Your task to perform on an android device: delete the emails in spam in the gmail app Image 0: 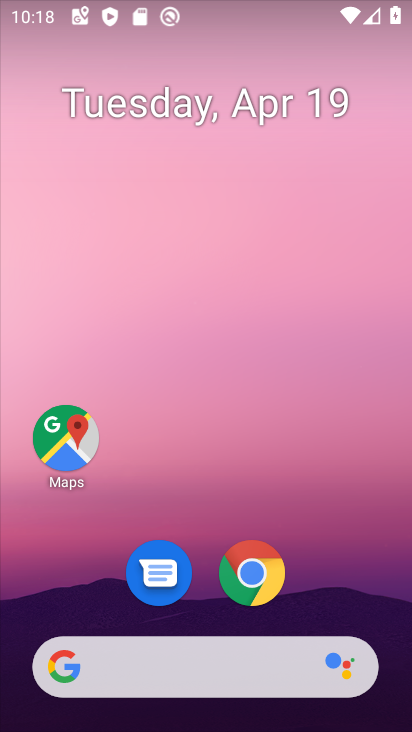
Step 0: drag from (330, 497) to (291, 77)
Your task to perform on an android device: delete the emails in spam in the gmail app Image 1: 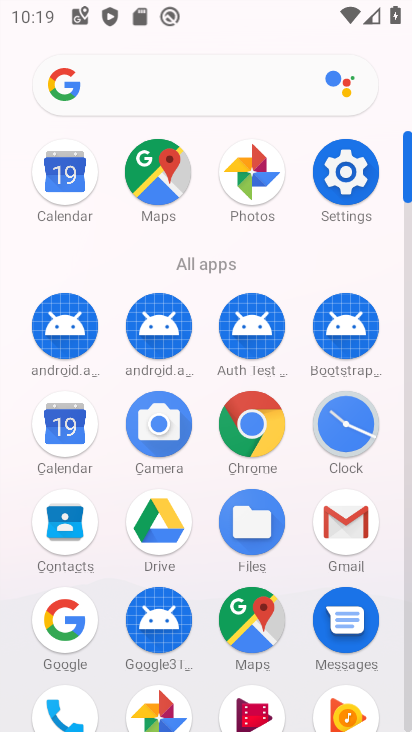
Step 1: click (356, 526)
Your task to perform on an android device: delete the emails in spam in the gmail app Image 2: 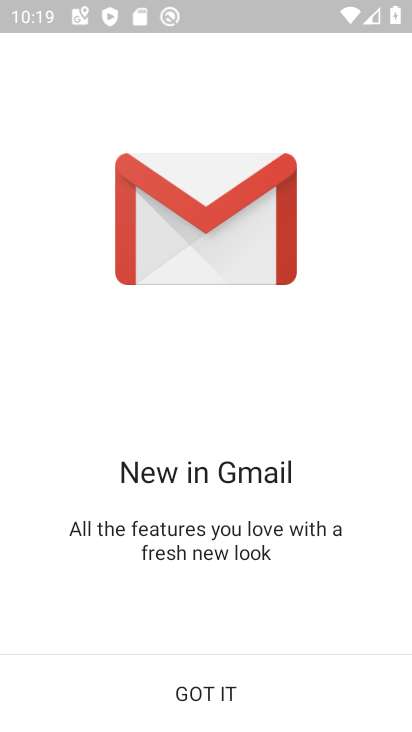
Step 2: click (211, 704)
Your task to perform on an android device: delete the emails in spam in the gmail app Image 3: 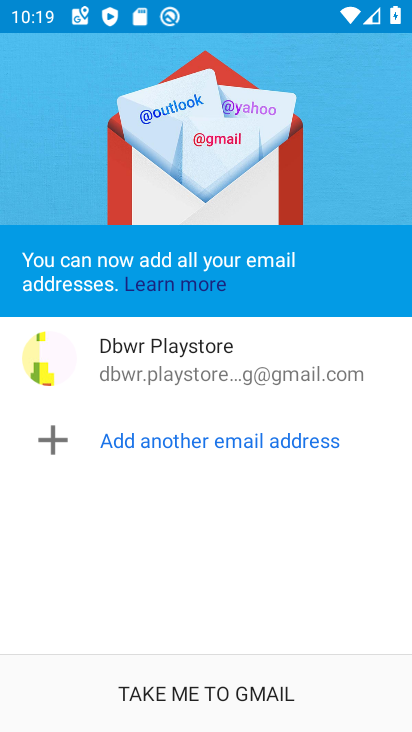
Step 3: click (205, 697)
Your task to perform on an android device: delete the emails in spam in the gmail app Image 4: 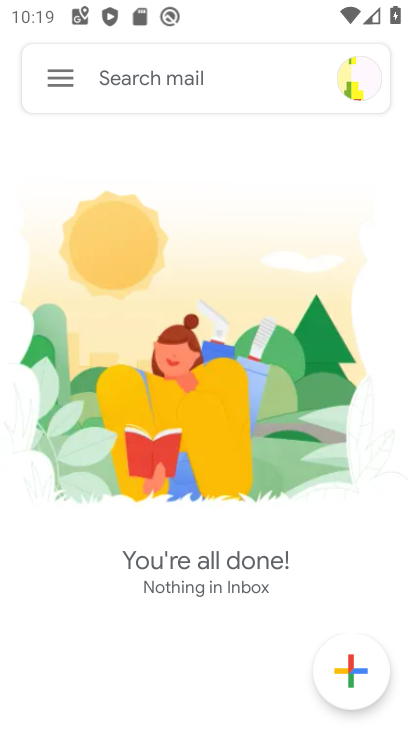
Step 4: click (60, 78)
Your task to perform on an android device: delete the emails in spam in the gmail app Image 5: 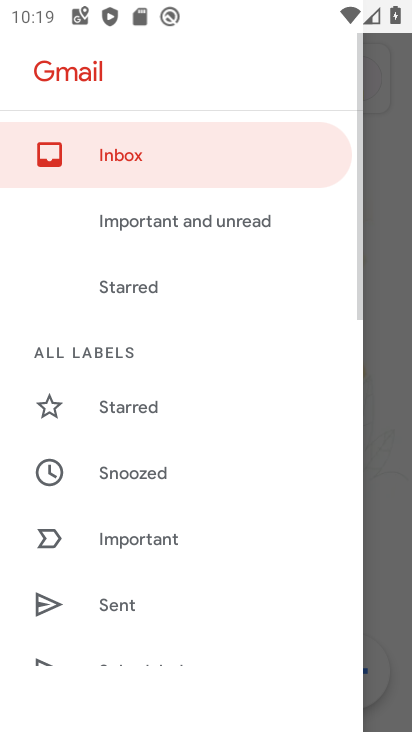
Step 5: drag from (164, 654) to (155, 217)
Your task to perform on an android device: delete the emails in spam in the gmail app Image 6: 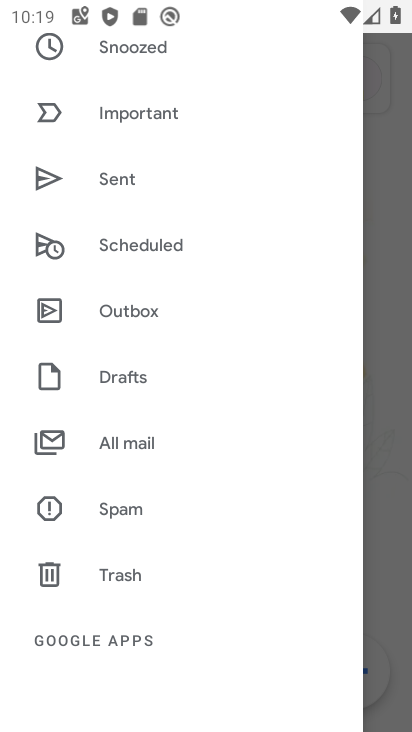
Step 6: drag from (163, 208) to (145, 635)
Your task to perform on an android device: delete the emails in spam in the gmail app Image 7: 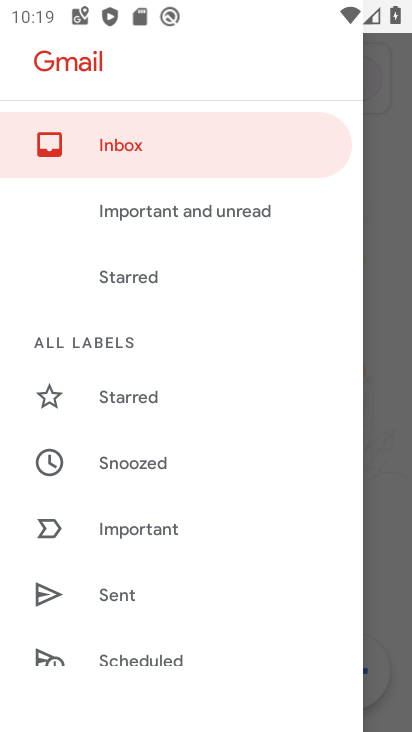
Step 7: drag from (130, 630) to (107, 314)
Your task to perform on an android device: delete the emails in spam in the gmail app Image 8: 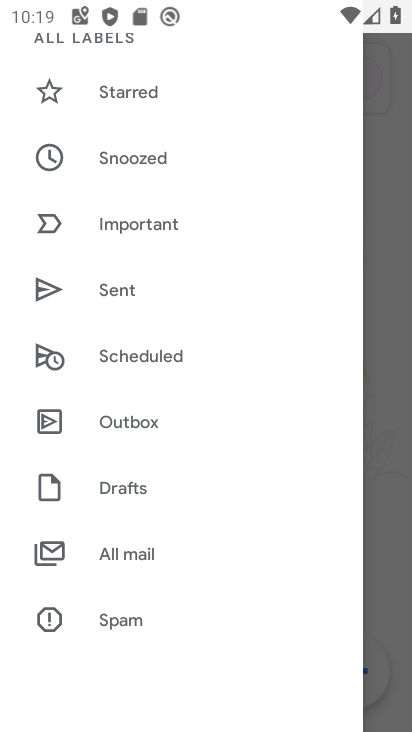
Step 8: click (96, 621)
Your task to perform on an android device: delete the emails in spam in the gmail app Image 9: 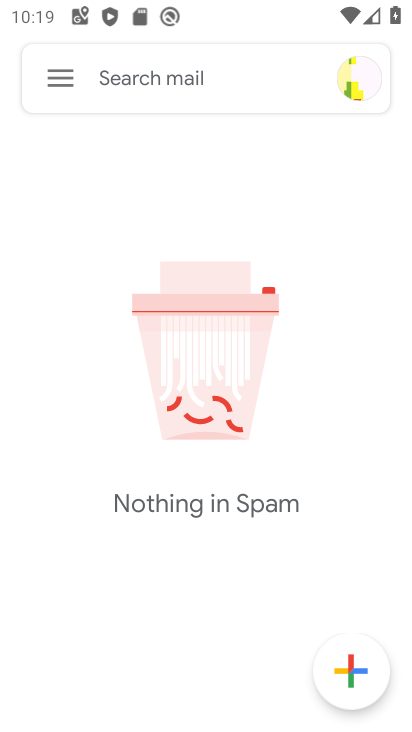
Step 9: task complete